Your task to perform on an android device: Open Google Maps Image 0: 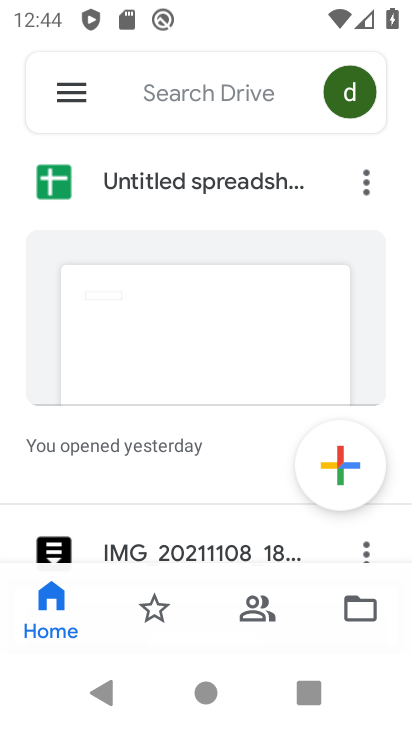
Step 0: press home button
Your task to perform on an android device: Open Google Maps Image 1: 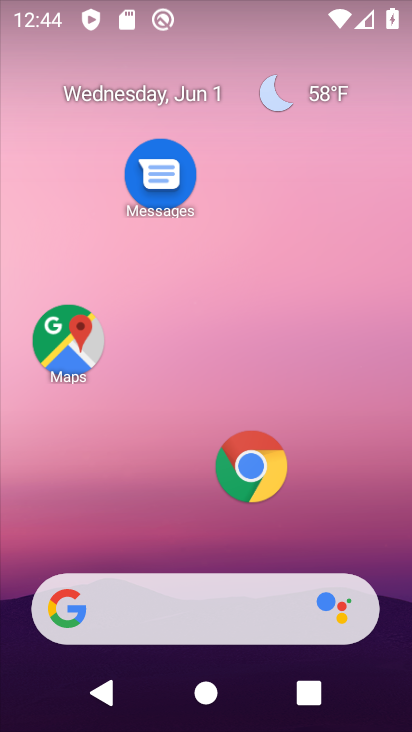
Step 1: click (69, 344)
Your task to perform on an android device: Open Google Maps Image 2: 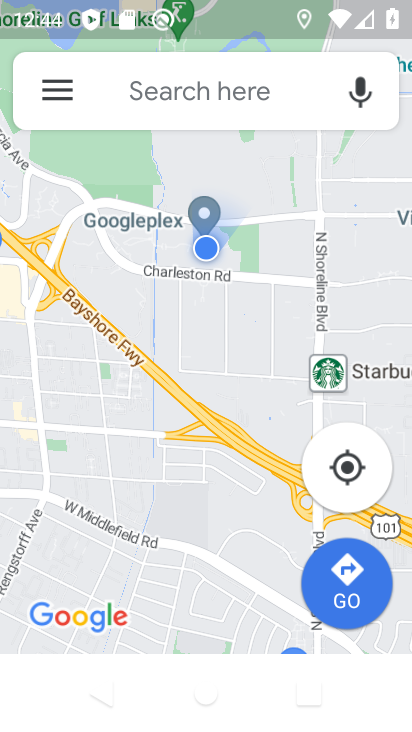
Step 2: task complete